Your task to perform on an android device: Open the stopwatch Image 0: 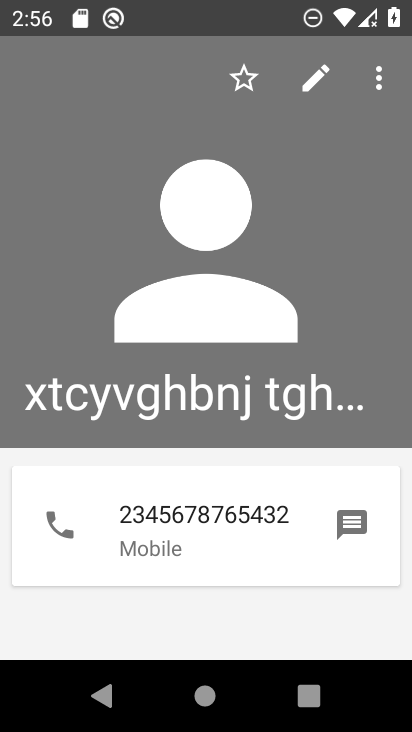
Step 0: press home button
Your task to perform on an android device: Open the stopwatch Image 1: 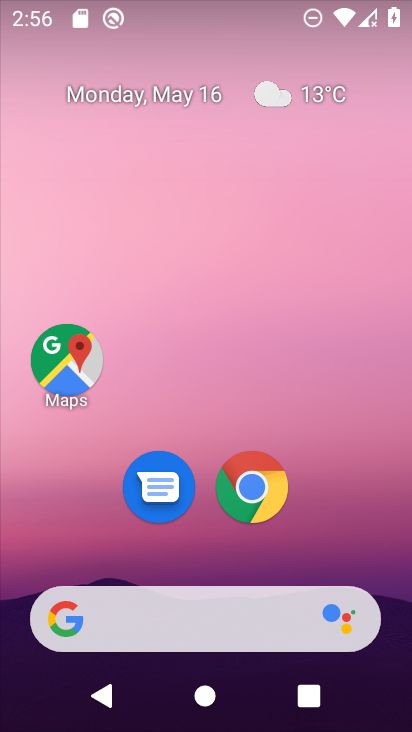
Step 1: drag from (398, 571) to (409, 22)
Your task to perform on an android device: Open the stopwatch Image 2: 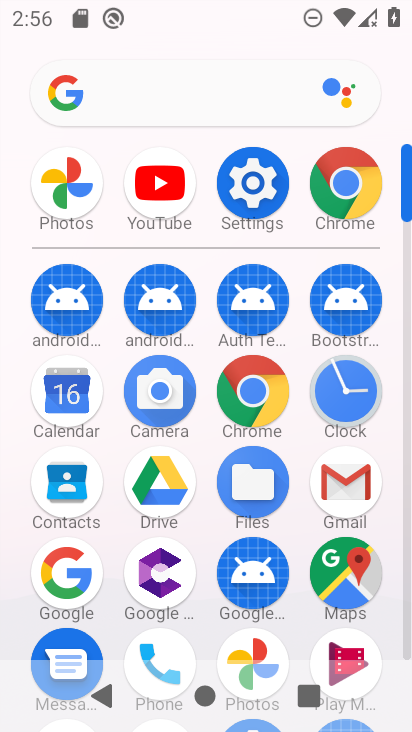
Step 2: click (241, 181)
Your task to perform on an android device: Open the stopwatch Image 3: 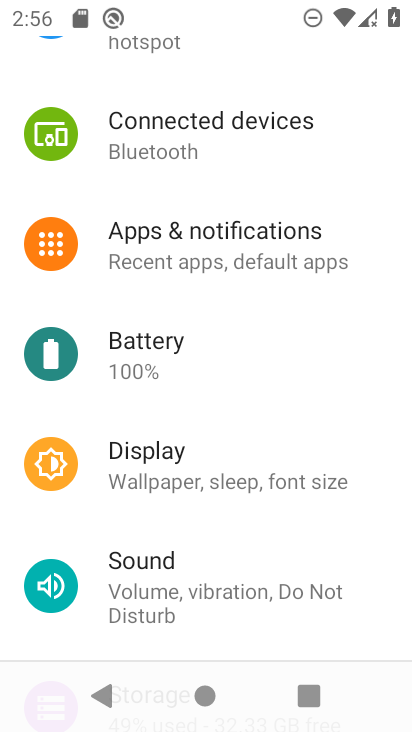
Step 3: press home button
Your task to perform on an android device: Open the stopwatch Image 4: 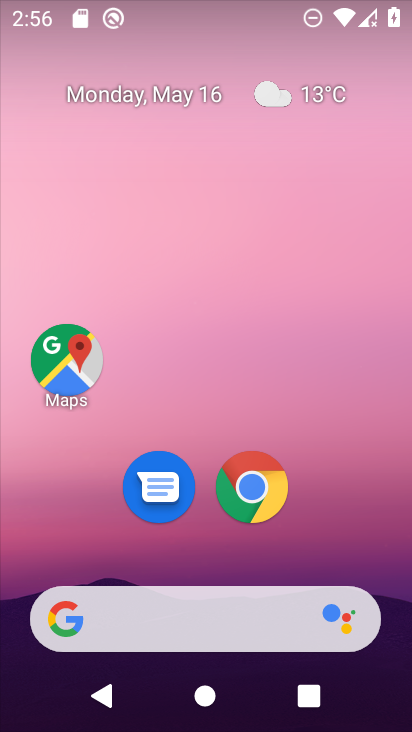
Step 4: drag from (391, 642) to (327, 135)
Your task to perform on an android device: Open the stopwatch Image 5: 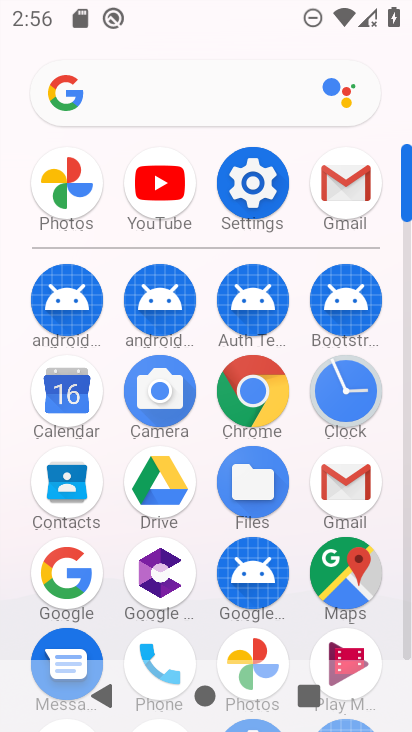
Step 5: click (323, 383)
Your task to perform on an android device: Open the stopwatch Image 6: 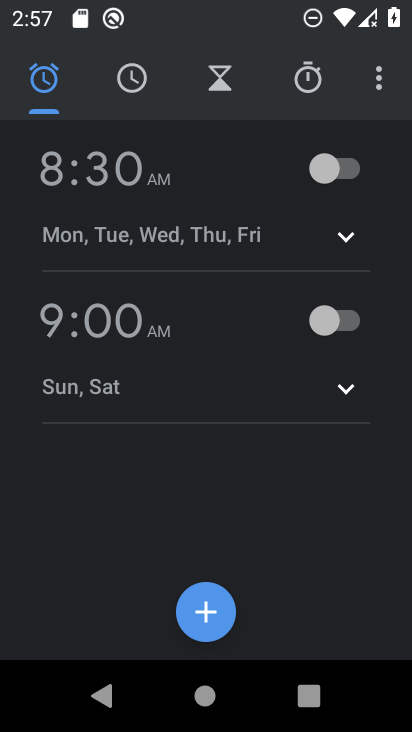
Step 6: click (298, 77)
Your task to perform on an android device: Open the stopwatch Image 7: 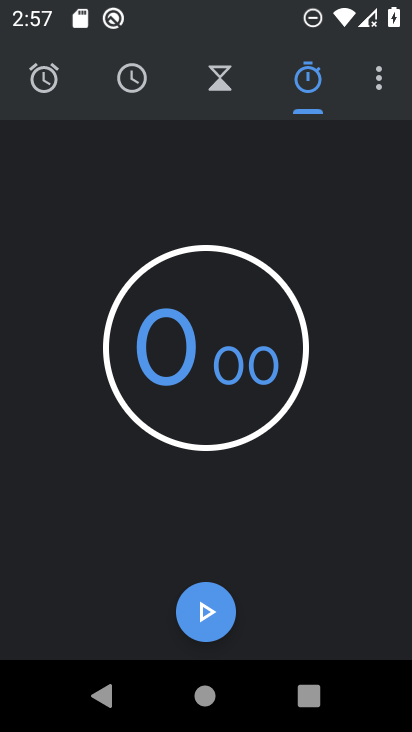
Step 7: task complete